Your task to perform on an android device: Go to accessibility settings Image 0: 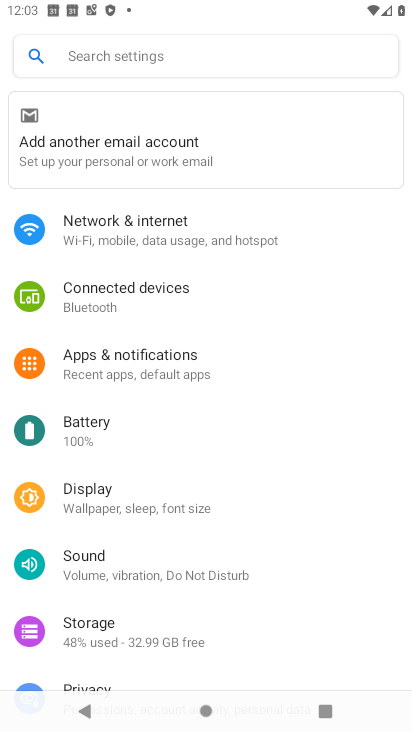
Step 0: drag from (240, 612) to (264, 23)
Your task to perform on an android device: Go to accessibility settings Image 1: 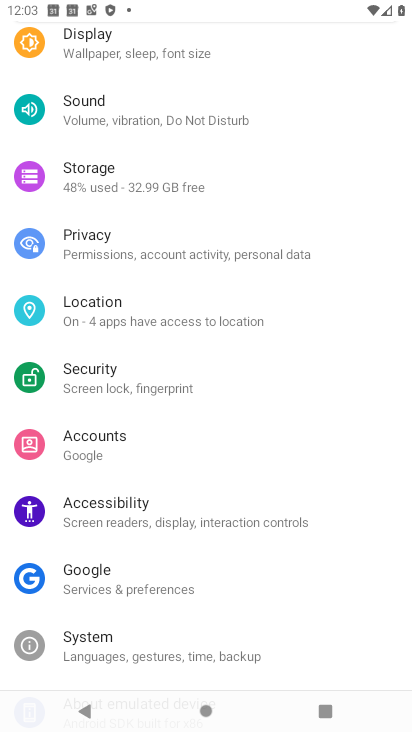
Step 1: click (166, 516)
Your task to perform on an android device: Go to accessibility settings Image 2: 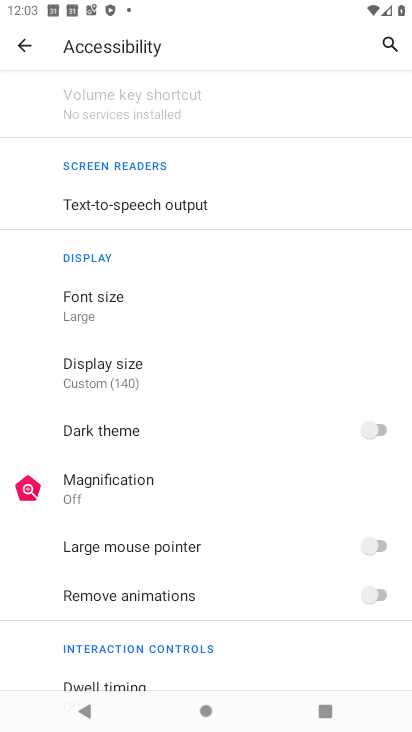
Step 2: task complete